Your task to perform on an android device: Open eBay Image 0: 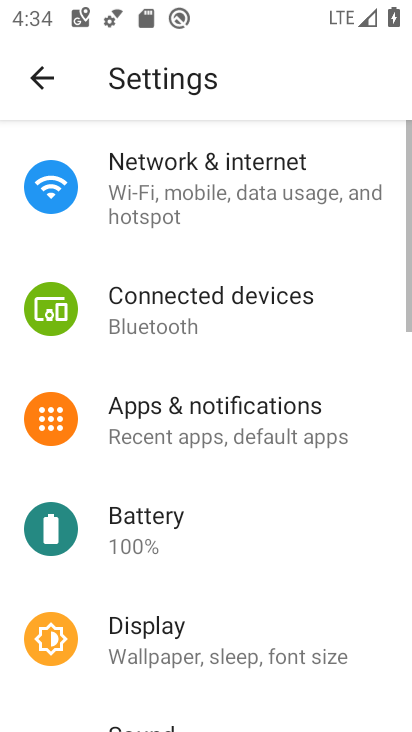
Step 0: press home button
Your task to perform on an android device: Open eBay Image 1: 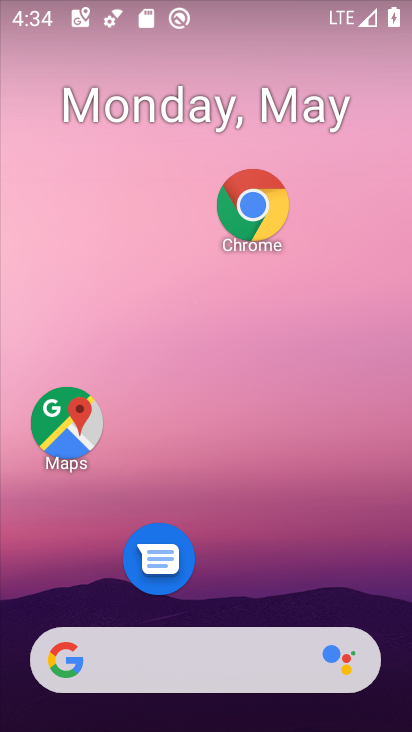
Step 1: click (241, 215)
Your task to perform on an android device: Open eBay Image 2: 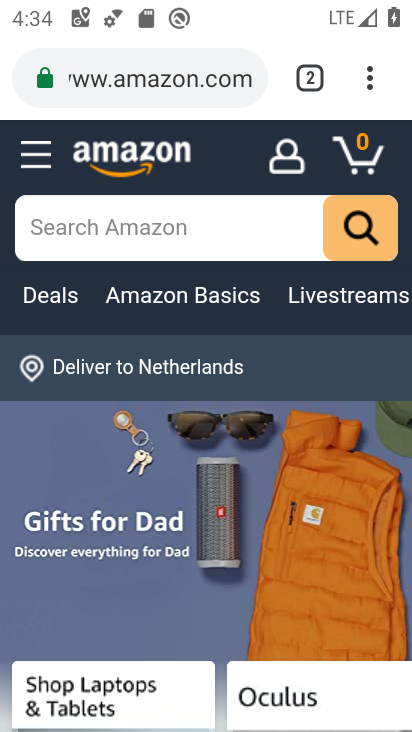
Step 2: press back button
Your task to perform on an android device: Open eBay Image 3: 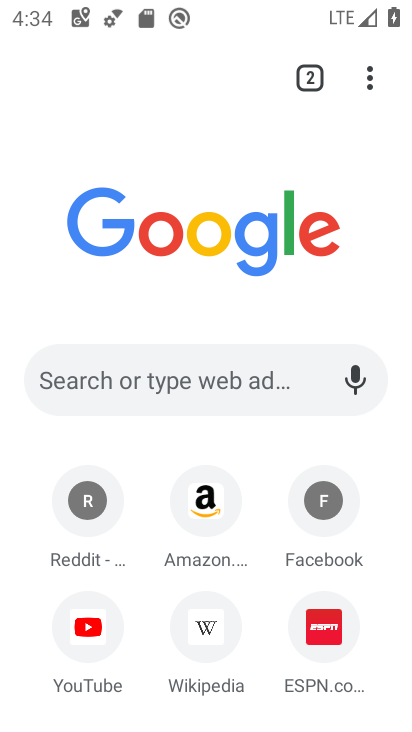
Step 3: drag from (244, 673) to (279, 434)
Your task to perform on an android device: Open eBay Image 4: 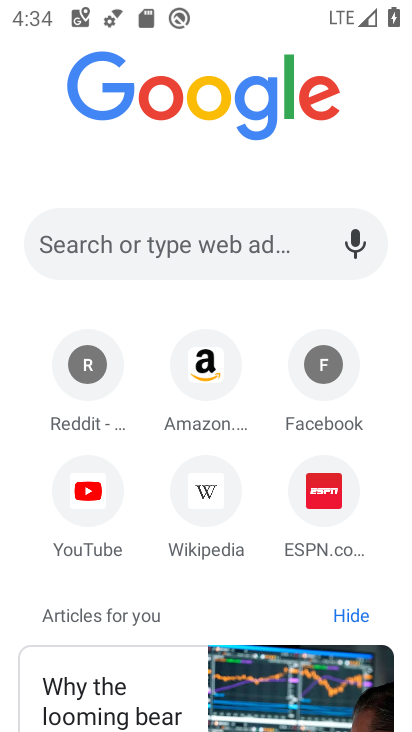
Step 4: click (208, 262)
Your task to perform on an android device: Open eBay Image 5: 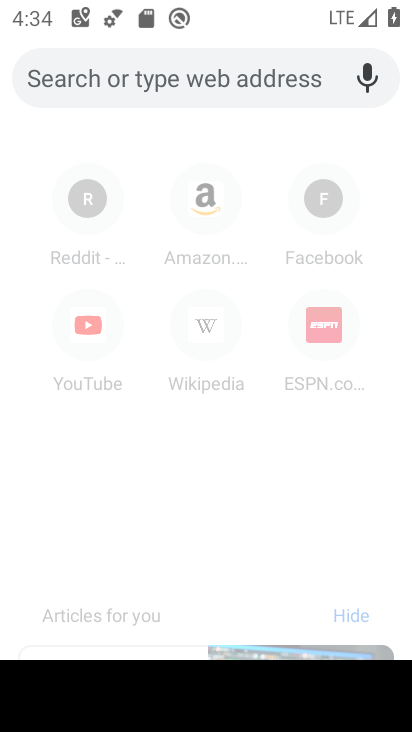
Step 5: type "www.ebay.com"
Your task to perform on an android device: Open eBay Image 6: 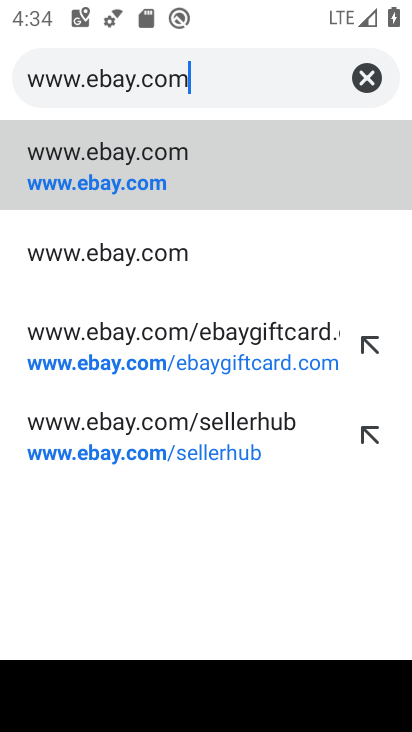
Step 6: click (135, 187)
Your task to perform on an android device: Open eBay Image 7: 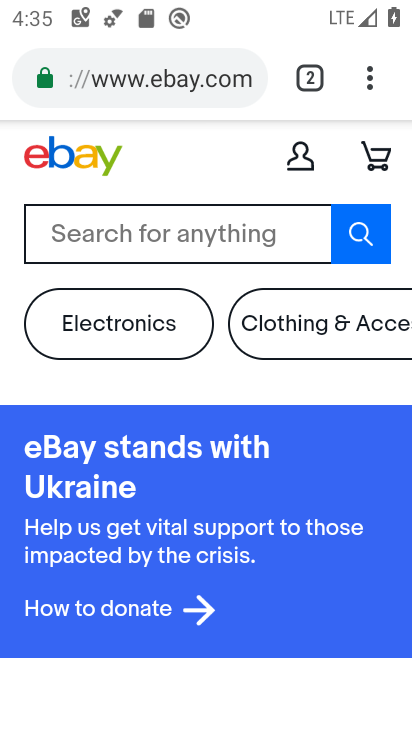
Step 7: task complete